Your task to perform on an android device: turn off notifications in google photos Image 0: 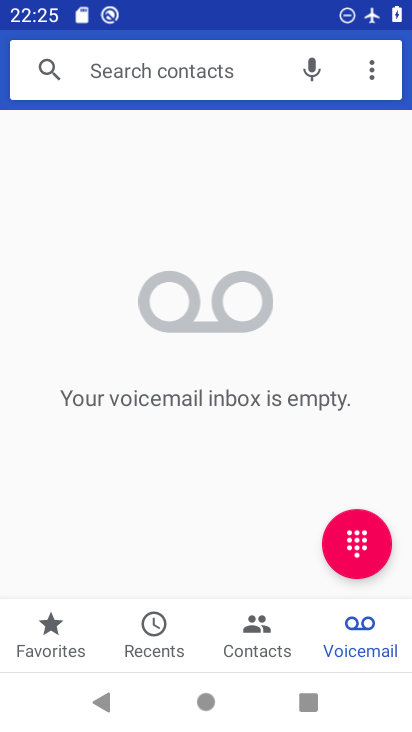
Step 0: press home button
Your task to perform on an android device: turn off notifications in google photos Image 1: 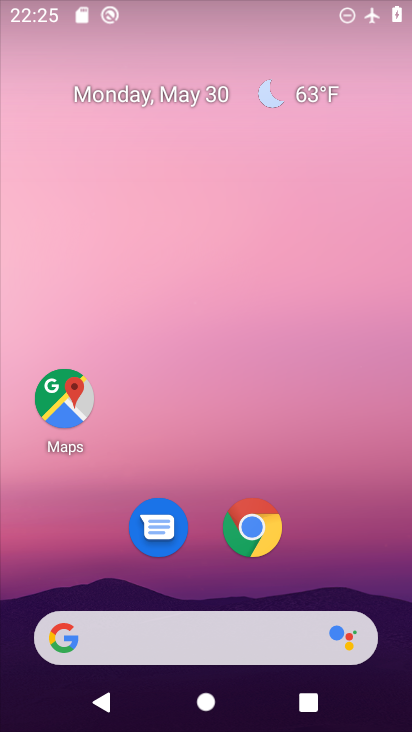
Step 1: drag from (241, 561) to (244, 172)
Your task to perform on an android device: turn off notifications in google photos Image 2: 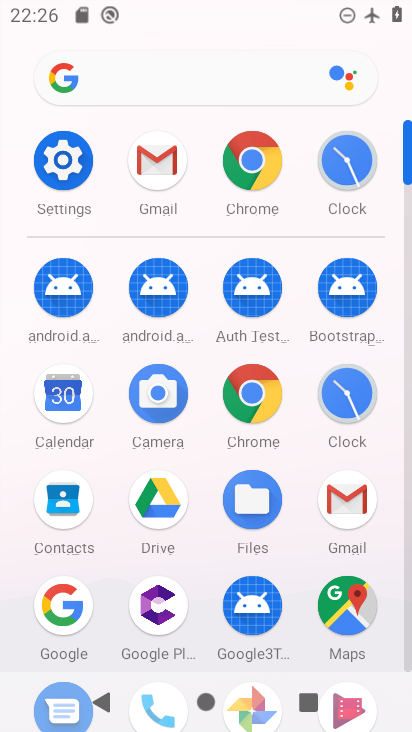
Step 2: drag from (207, 635) to (226, 360)
Your task to perform on an android device: turn off notifications in google photos Image 3: 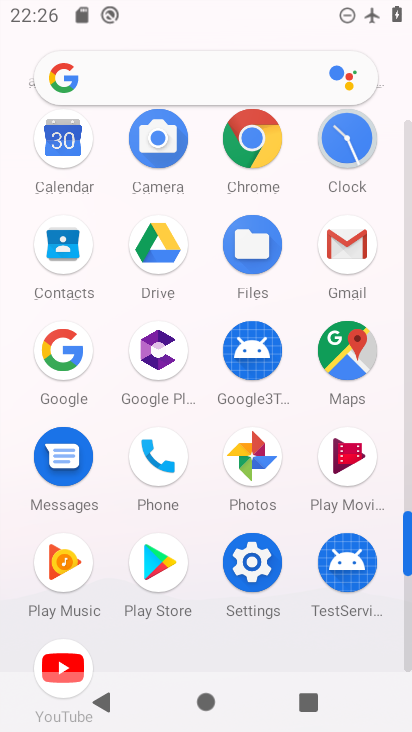
Step 3: click (251, 564)
Your task to perform on an android device: turn off notifications in google photos Image 4: 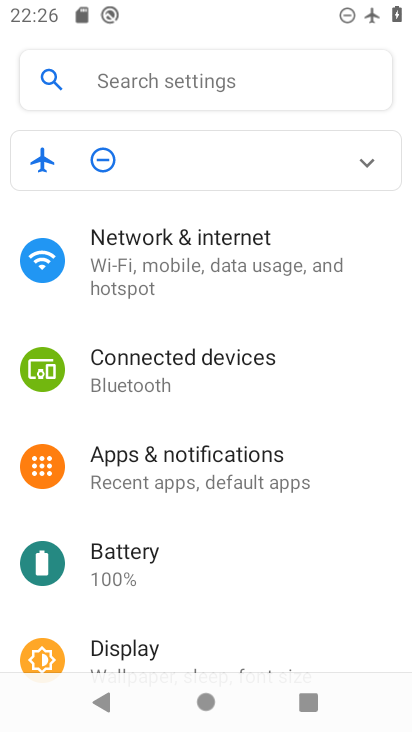
Step 4: press home button
Your task to perform on an android device: turn off notifications in google photos Image 5: 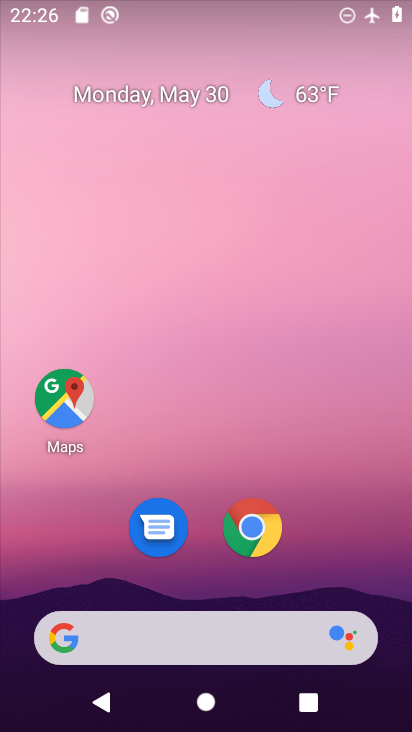
Step 5: drag from (214, 519) to (214, 263)
Your task to perform on an android device: turn off notifications in google photos Image 6: 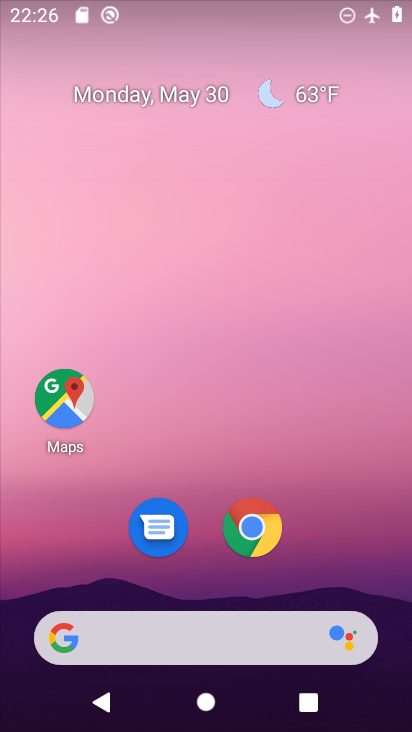
Step 6: drag from (225, 557) to (208, 189)
Your task to perform on an android device: turn off notifications in google photos Image 7: 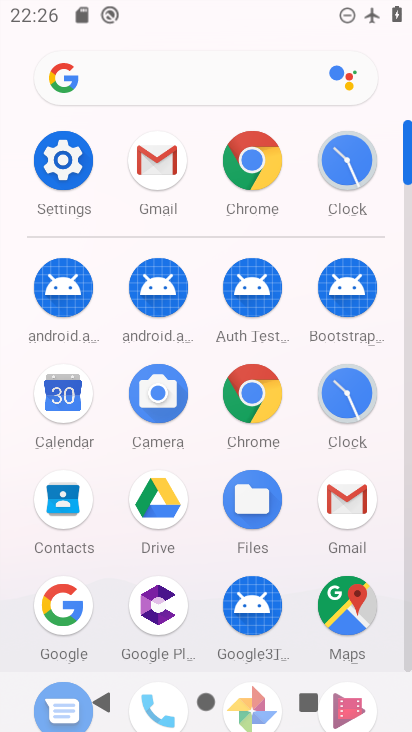
Step 7: drag from (189, 581) to (211, 322)
Your task to perform on an android device: turn off notifications in google photos Image 8: 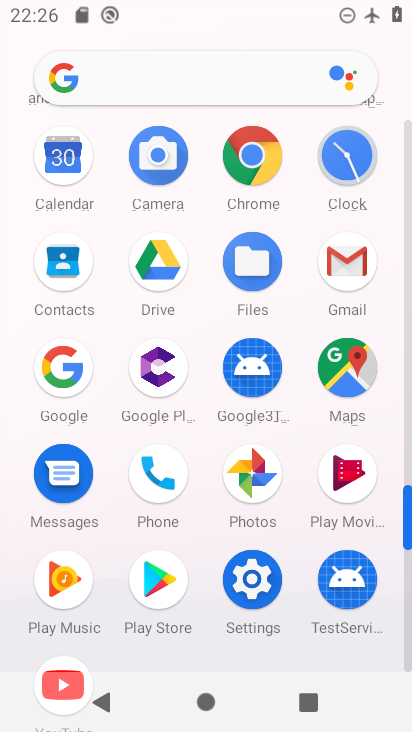
Step 8: click (249, 463)
Your task to perform on an android device: turn off notifications in google photos Image 9: 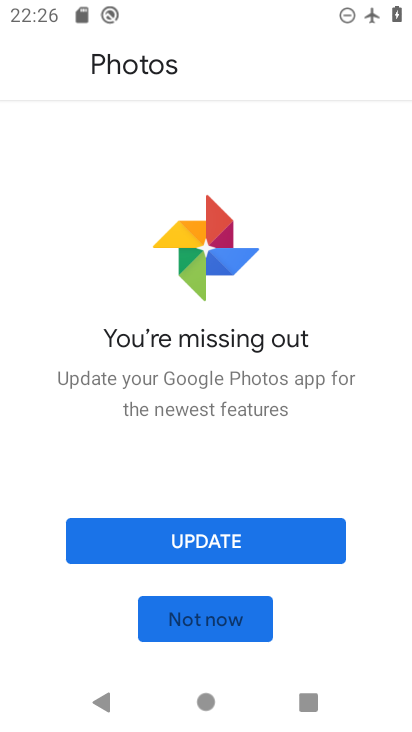
Step 9: click (211, 628)
Your task to perform on an android device: turn off notifications in google photos Image 10: 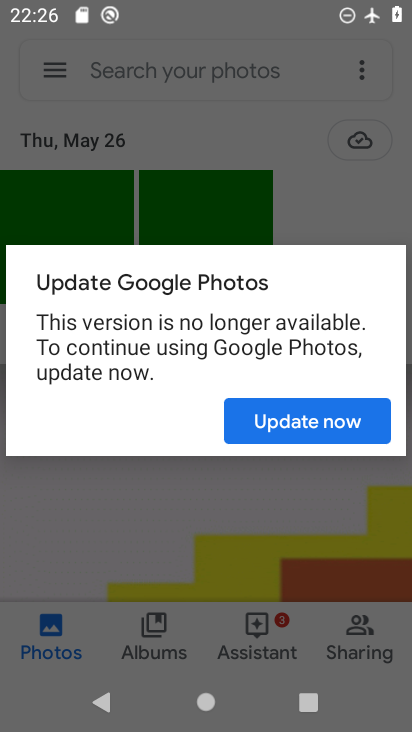
Step 10: click (302, 405)
Your task to perform on an android device: turn off notifications in google photos Image 11: 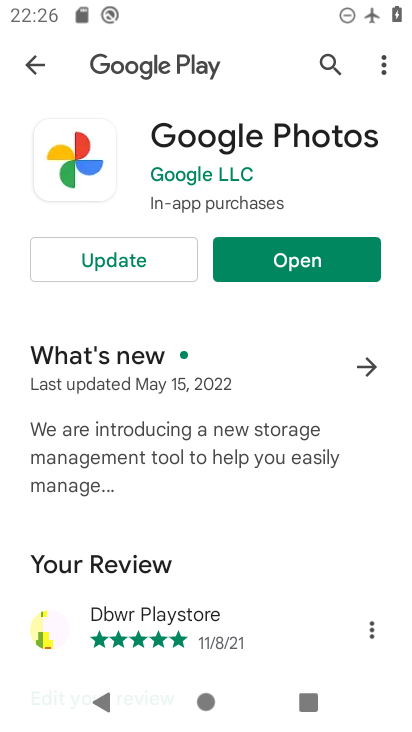
Step 11: press back button
Your task to perform on an android device: turn off notifications in google photos Image 12: 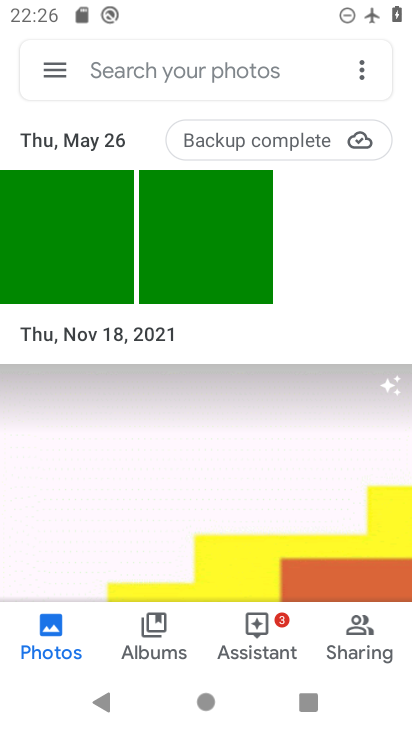
Step 12: click (55, 64)
Your task to perform on an android device: turn off notifications in google photos Image 13: 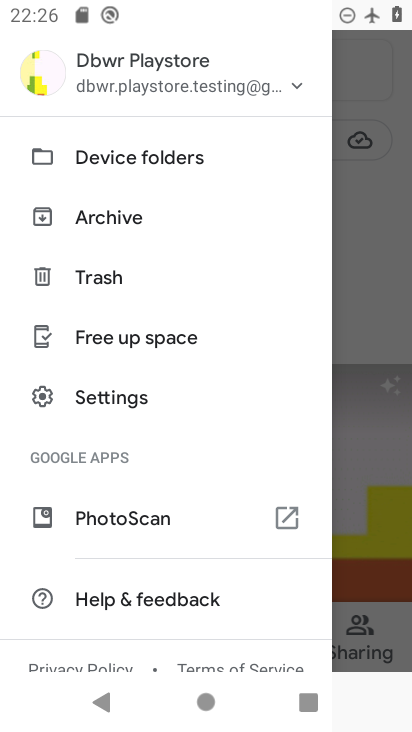
Step 13: drag from (166, 540) to (168, 391)
Your task to perform on an android device: turn off notifications in google photos Image 14: 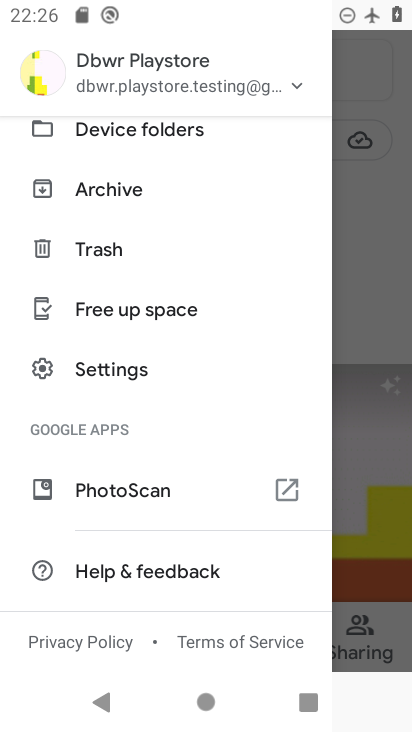
Step 14: click (138, 355)
Your task to perform on an android device: turn off notifications in google photos Image 15: 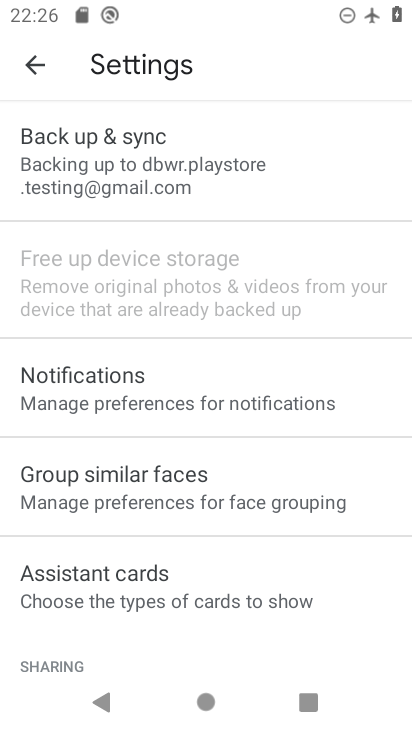
Step 15: click (163, 389)
Your task to perform on an android device: turn off notifications in google photos Image 16: 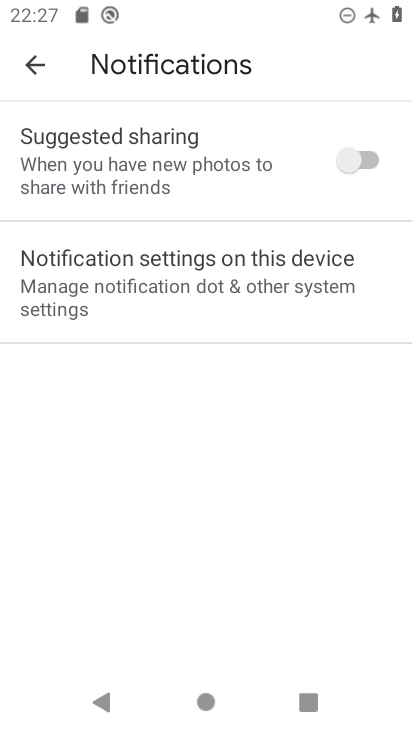
Step 16: click (227, 284)
Your task to perform on an android device: turn off notifications in google photos Image 17: 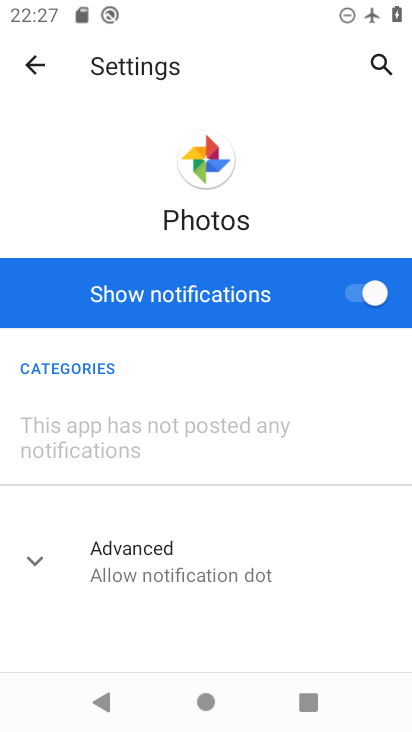
Step 17: click (350, 284)
Your task to perform on an android device: turn off notifications in google photos Image 18: 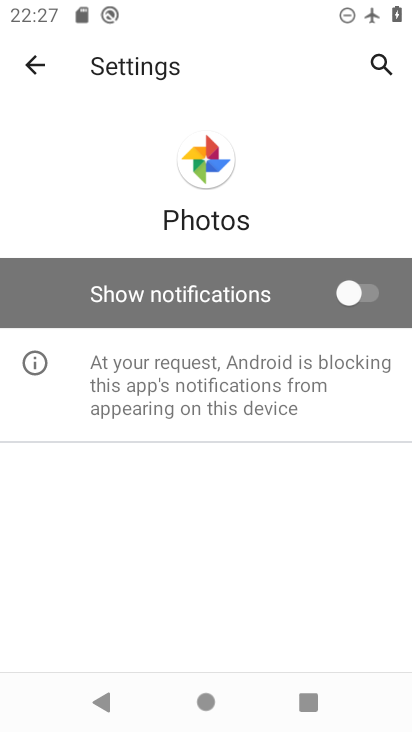
Step 18: task complete